Your task to perform on an android device: Open location settings Image 0: 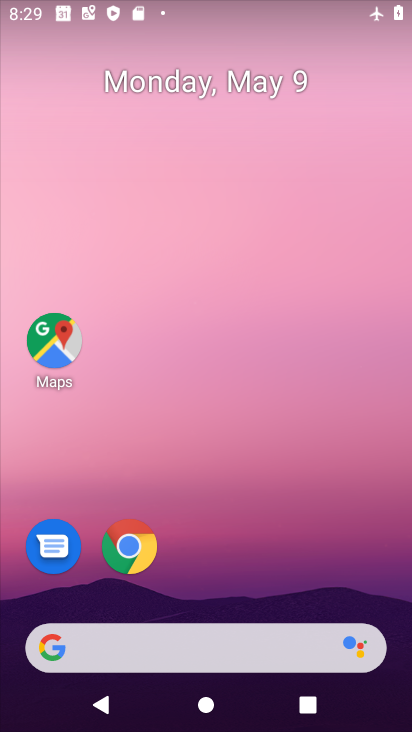
Step 0: drag from (262, 704) to (297, 87)
Your task to perform on an android device: Open location settings Image 1: 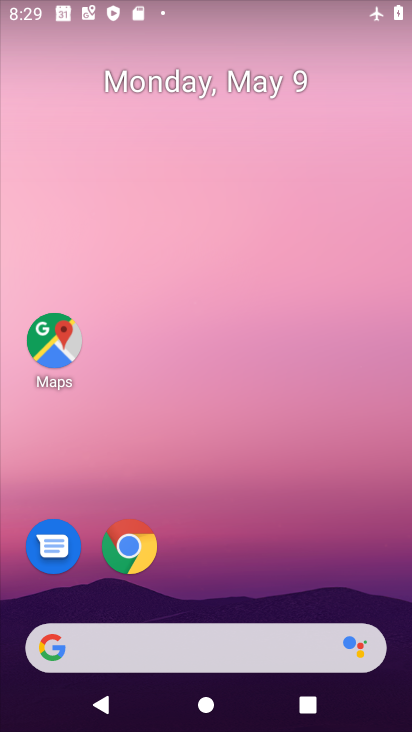
Step 1: drag from (258, 721) to (382, 88)
Your task to perform on an android device: Open location settings Image 2: 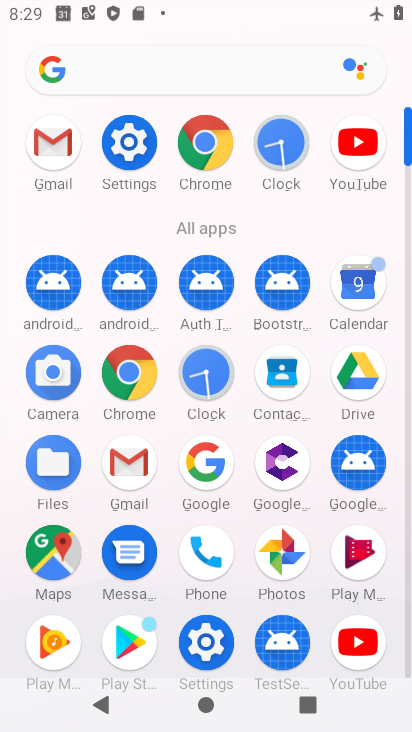
Step 2: click (121, 150)
Your task to perform on an android device: Open location settings Image 3: 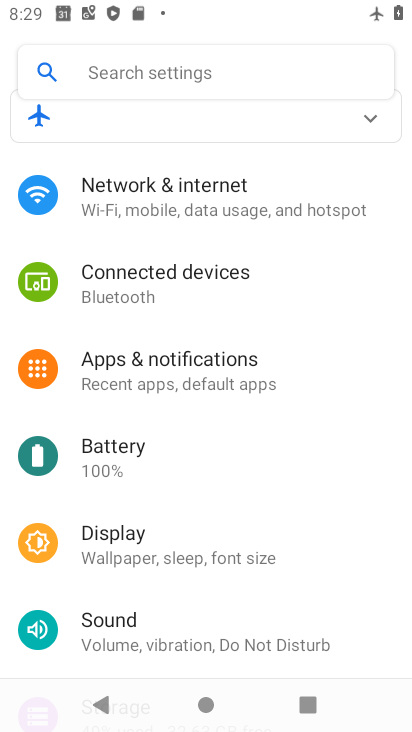
Step 3: drag from (265, 585) to (307, 102)
Your task to perform on an android device: Open location settings Image 4: 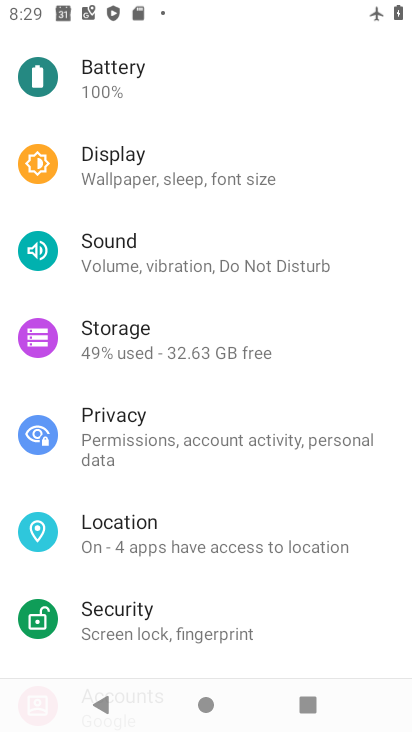
Step 4: click (93, 542)
Your task to perform on an android device: Open location settings Image 5: 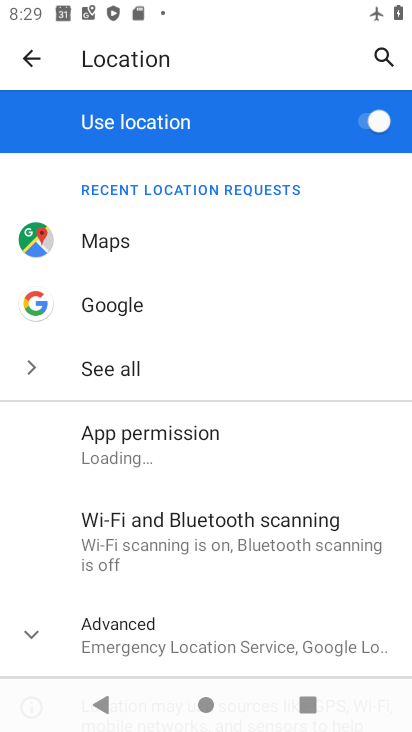
Step 5: task complete